Your task to perform on an android device: open device folders in google photos Image 0: 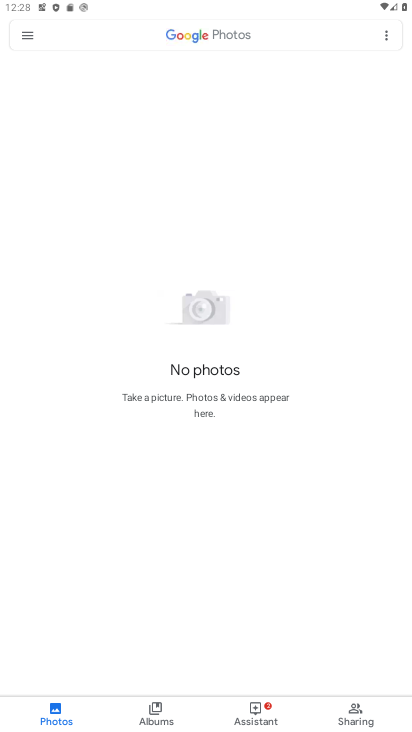
Step 0: click (25, 28)
Your task to perform on an android device: open device folders in google photos Image 1: 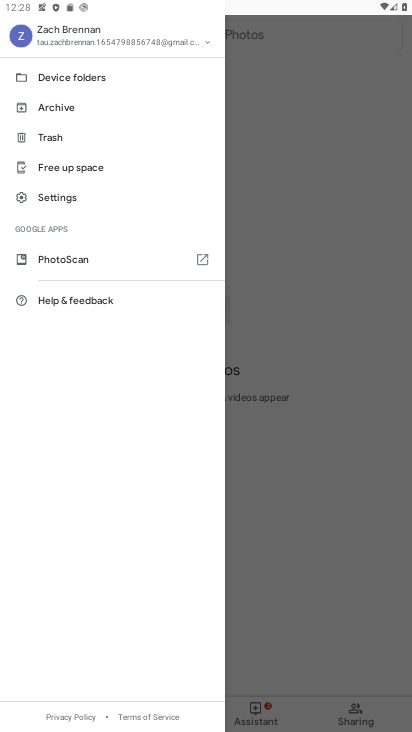
Step 1: click (75, 84)
Your task to perform on an android device: open device folders in google photos Image 2: 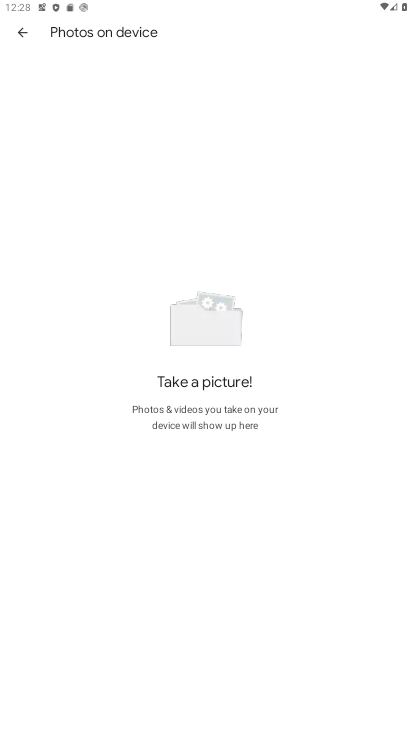
Step 2: task complete